Your task to perform on an android device: turn pop-ups on in chrome Image 0: 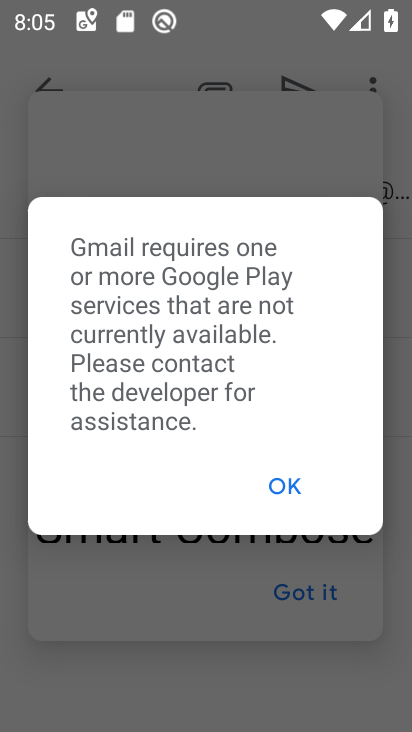
Step 0: press home button
Your task to perform on an android device: turn pop-ups on in chrome Image 1: 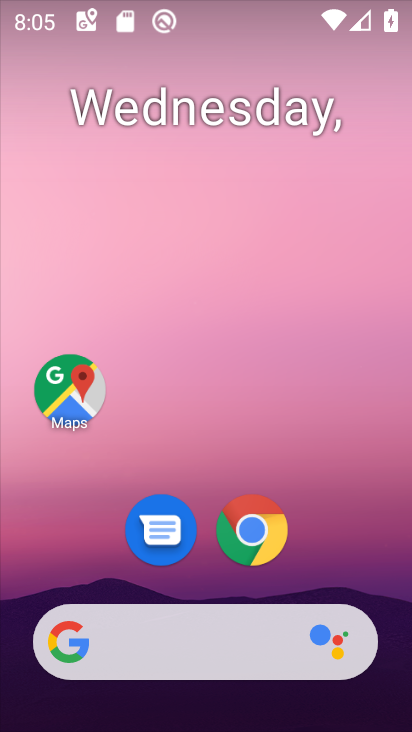
Step 1: drag from (398, 619) to (290, 74)
Your task to perform on an android device: turn pop-ups on in chrome Image 2: 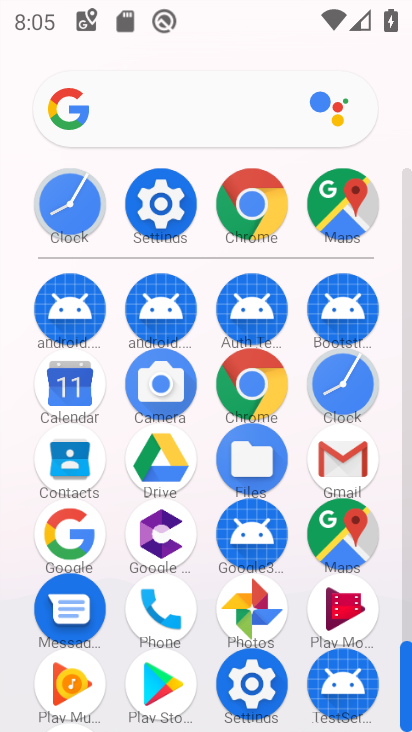
Step 2: click (256, 186)
Your task to perform on an android device: turn pop-ups on in chrome Image 3: 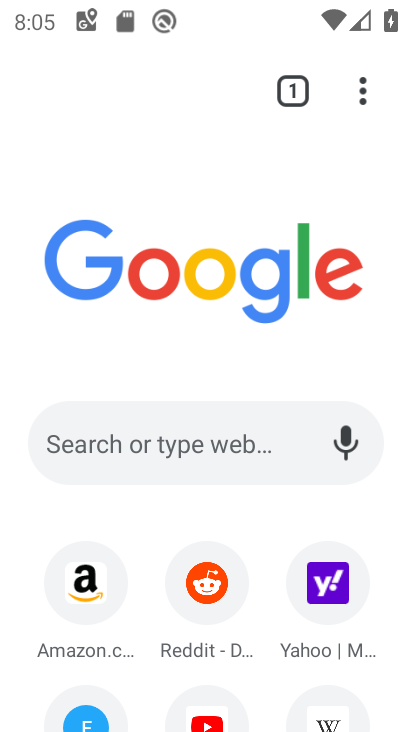
Step 3: click (361, 74)
Your task to perform on an android device: turn pop-ups on in chrome Image 4: 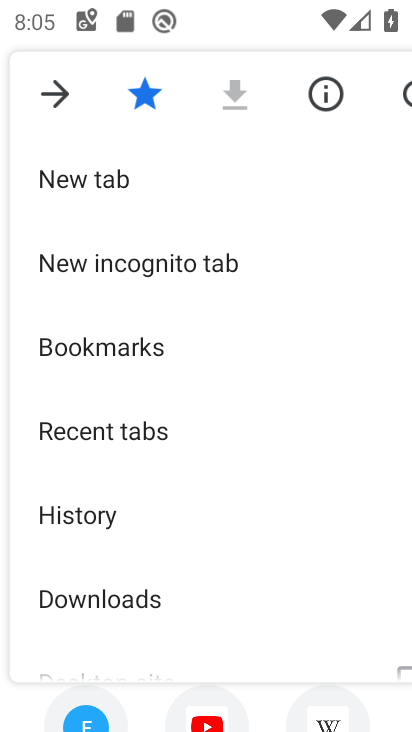
Step 4: drag from (158, 568) to (179, 201)
Your task to perform on an android device: turn pop-ups on in chrome Image 5: 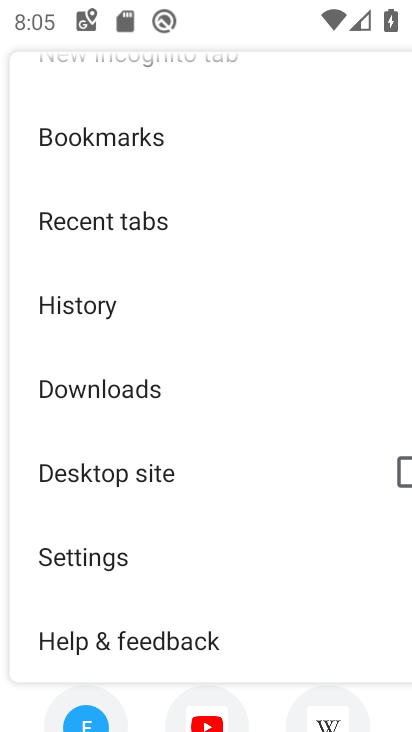
Step 5: click (101, 563)
Your task to perform on an android device: turn pop-ups on in chrome Image 6: 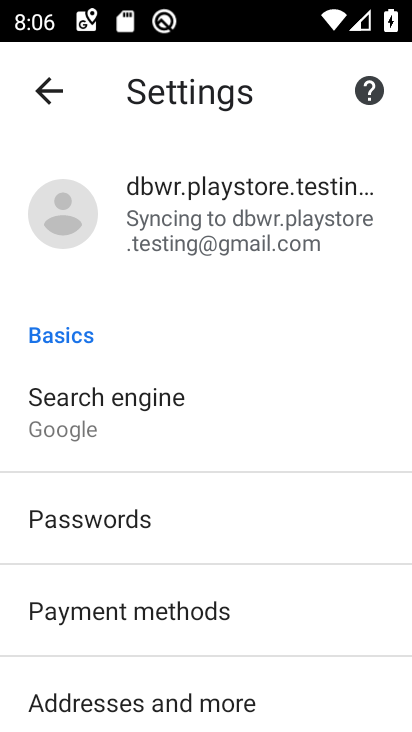
Step 6: drag from (156, 674) to (211, 163)
Your task to perform on an android device: turn pop-ups on in chrome Image 7: 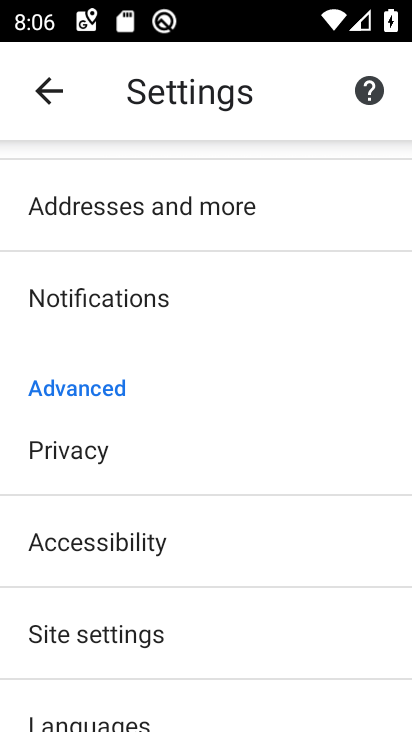
Step 7: click (131, 627)
Your task to perform on an android device: turn pop-ups on in chrome Image 8: 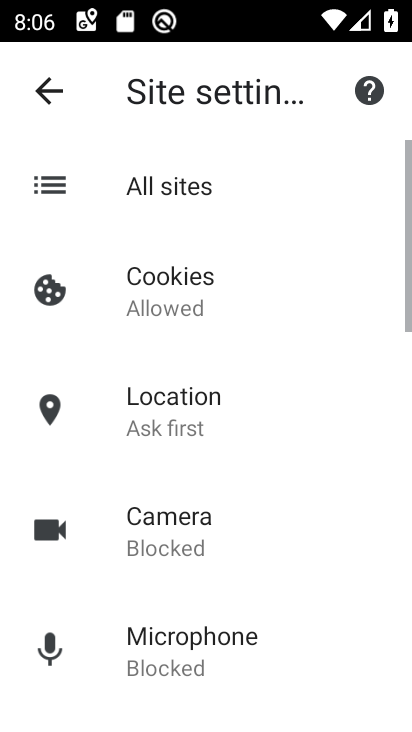
Step 8: drag from (131, 627) to (185, 287)
Your task to perform on an android device: turn pop-ups on in chrome Image 9: 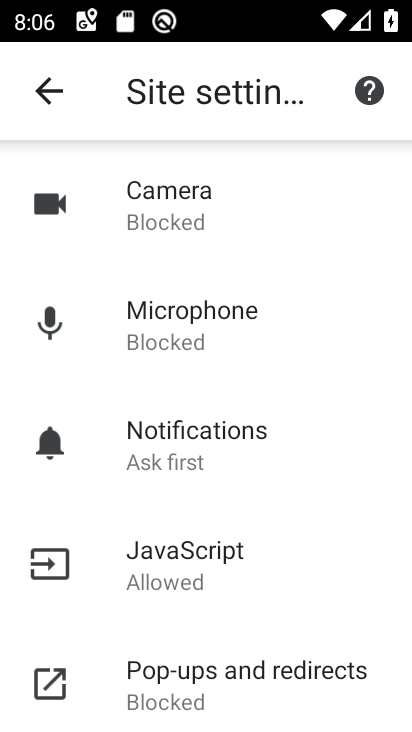
Step 9: click (186, 677)
Your task to perform on an android device: turn pop-ups on in chrome Image 10: 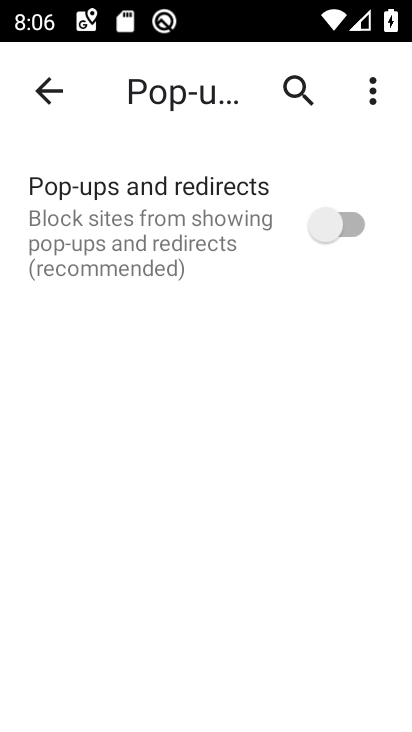
Step 10: click (363, 210)
Your task to perform on an android device: turn pop-ups on in chrome Image 11: 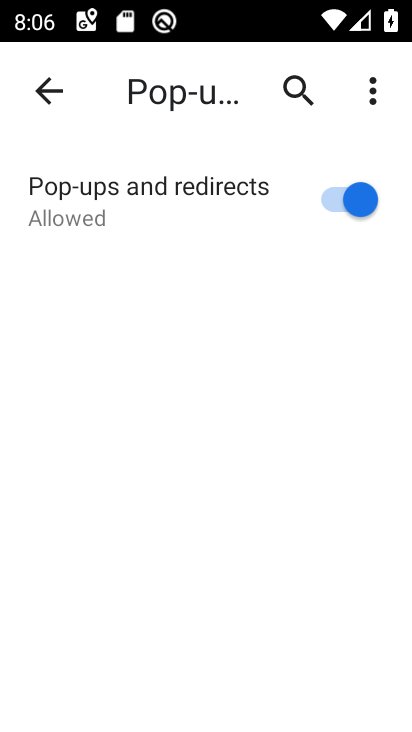
Step 11: task complete